Your task to perform on an android device: What's the weather? Image 0: 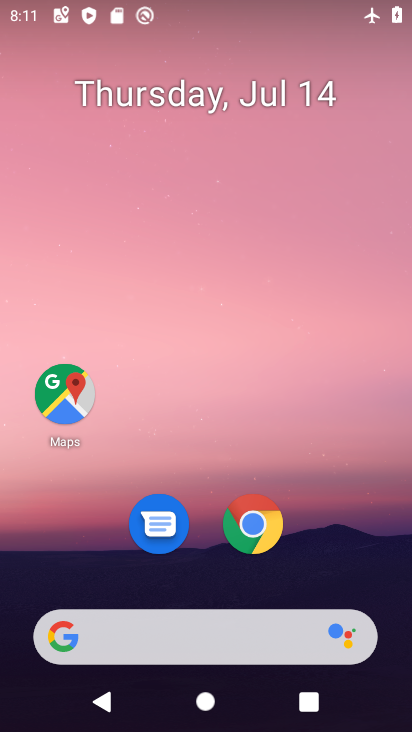
Step 0: click (217, 633)
Your task to perform on an android device: What's the weather? Image 1: 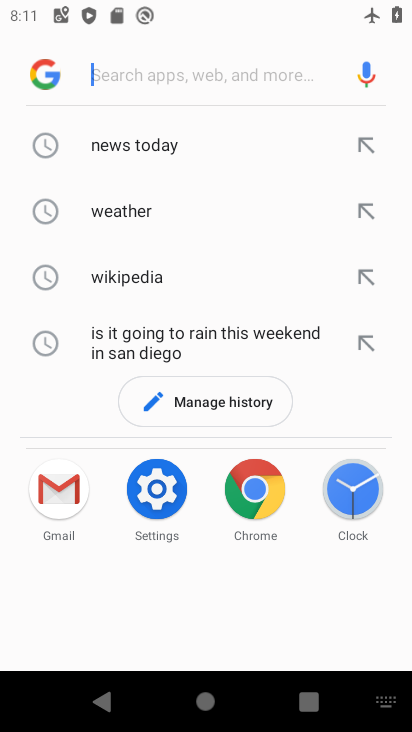
Step 1: click (128, 211)
Your task to perform on an android device: What's the weather? Image 2: 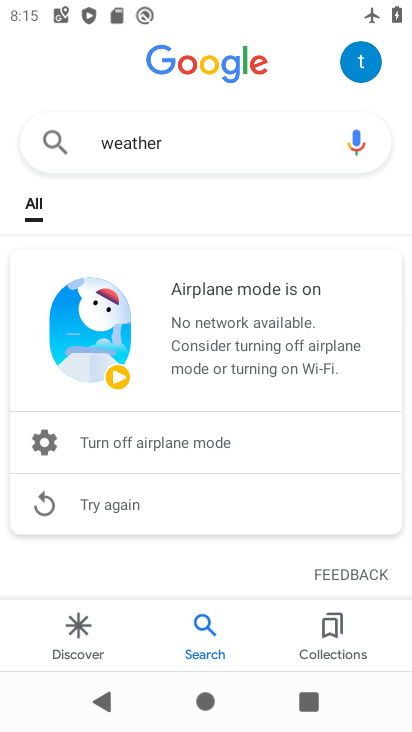
Step 2: task complete